Your task to perform on an android device: Add asus rog to the cart on newegg Image 0: 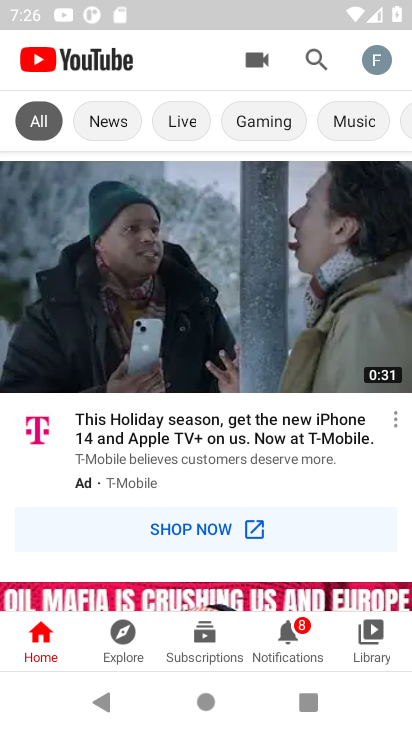
Step 0: press home button
Your task to perform on an android device: Add asus rog to the cart on newegg Image 1: 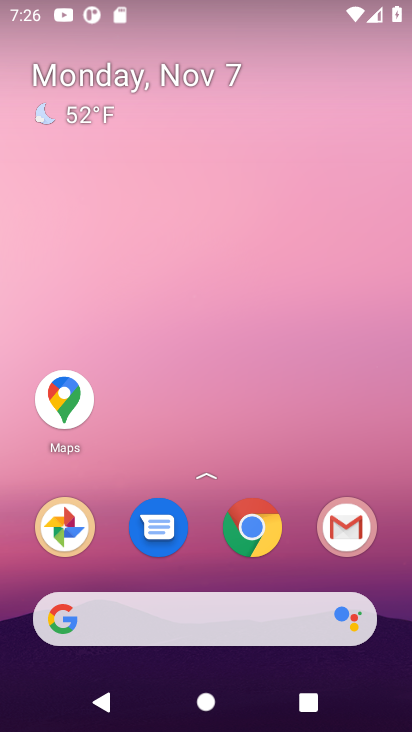
Step 1: click (247, 520)
Your task to perform on an android device: Add asus rog to the cart on newegg Image 2: 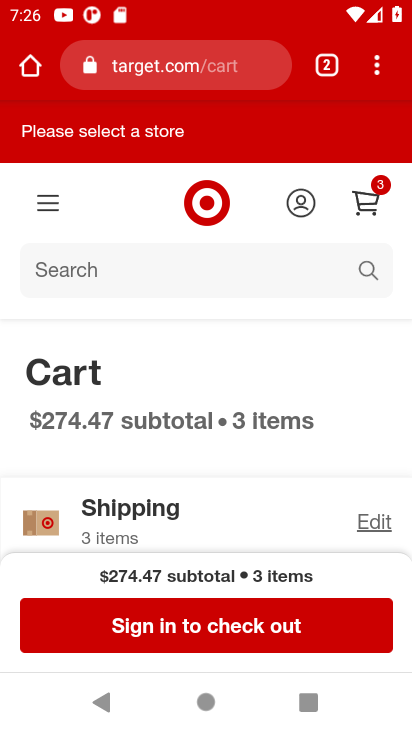
Step 2: click (194, 66)
Your task to perform on an android device: Add asus rog to the cart on newegg Image 3: 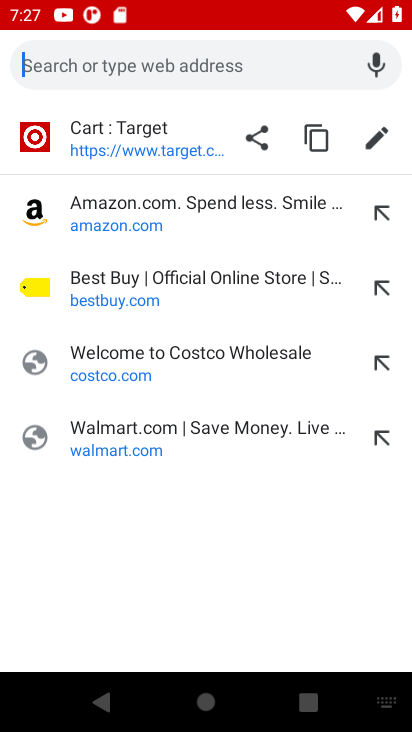
Step 3: type "newgg"
Your task to perform on an android device: Add asus rog to the cart on newegg Image 4: 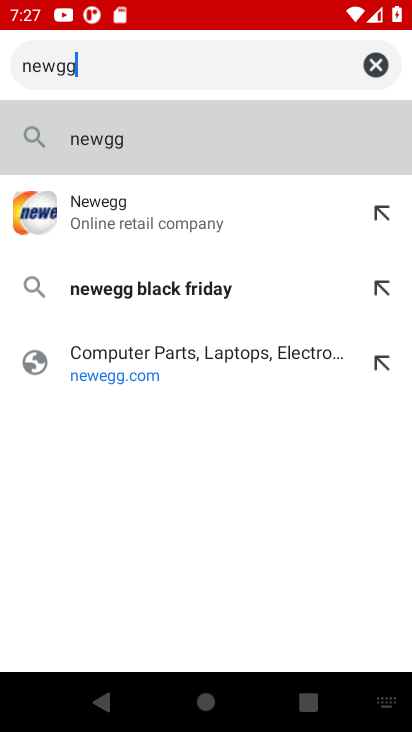
Step 4: click (141, 214)
Your task to perform on an android device: Add asus rog to the cart on newegg Image 5: 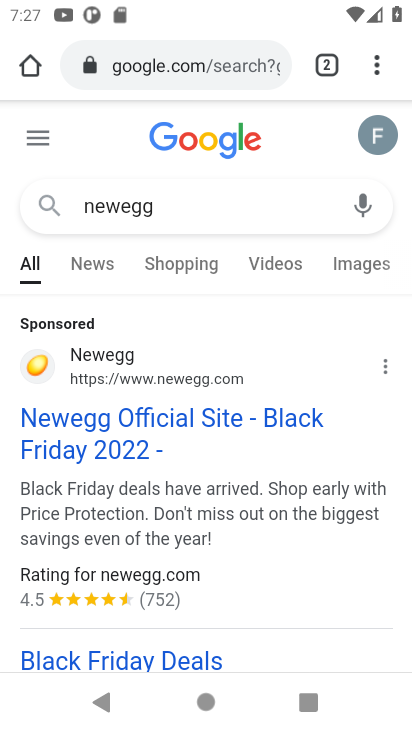
Step 5: click (128, 452)
Your task to perform on an android device: Add asus rog to the cart on newegg Image 6: 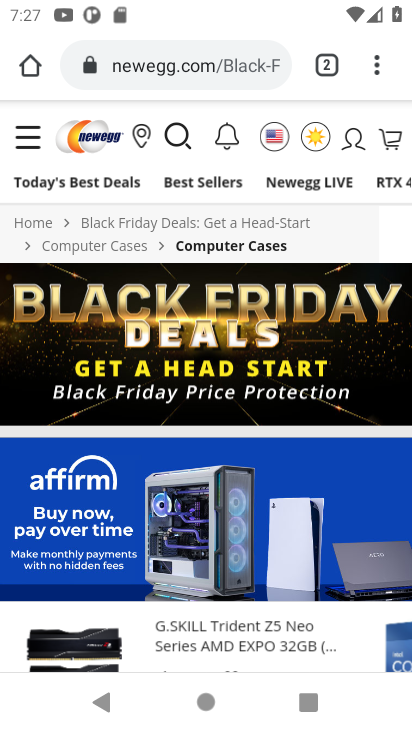
Step 6: click (174, 146)
Your task to perform on an android device: Add asus rog to the cart on newegg Image 7: 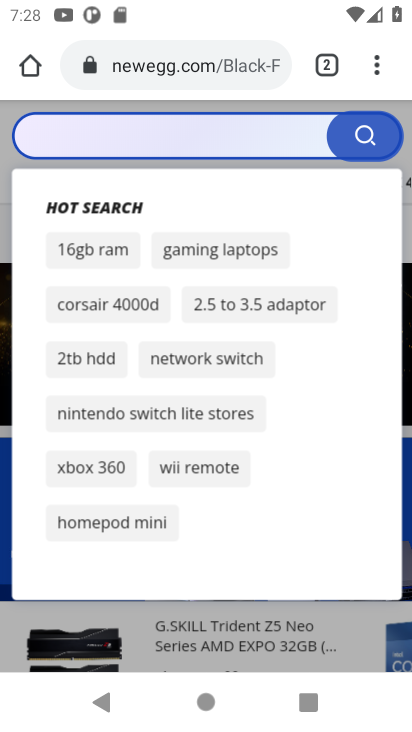
Step 7: click (170, 140)
Your task to perform on an android device: Add asus rog to the cart on newegg Image 8: 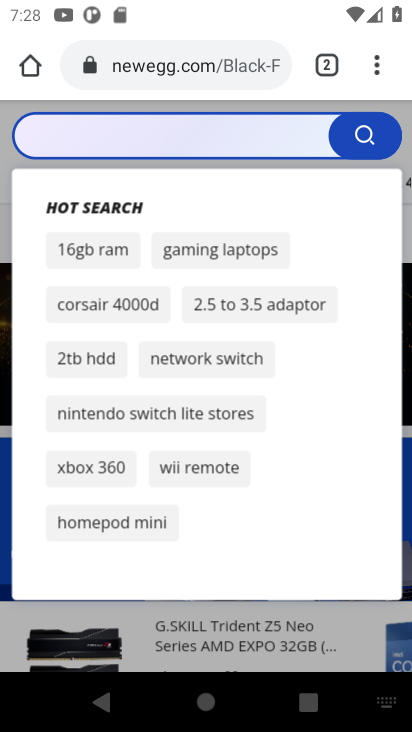
Step 8: type "asus rog"
Your task to perform on an android device: Add asus rog to the cart on newegg Image 9: 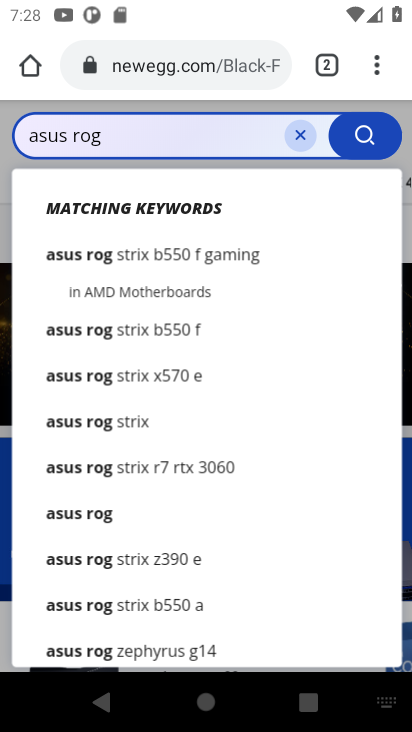
Step 9: press enter
Your task to perform on an android device: Add asus rog to the cart on newegg Image 10: 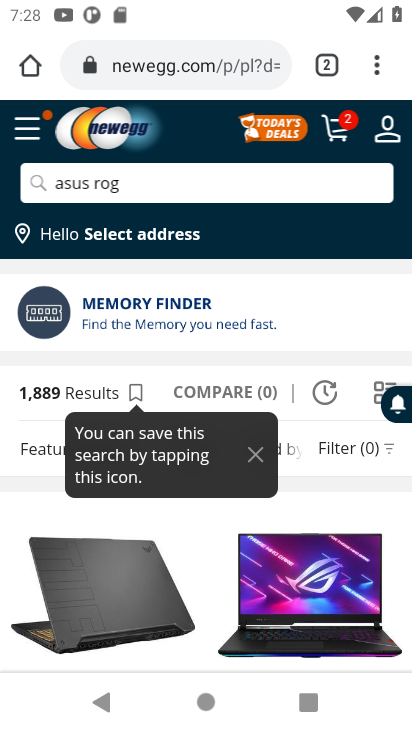
Step 10: click (171, 192)
Your task to perform on an android device: Add asus rog to the cart on newegg Image 11: 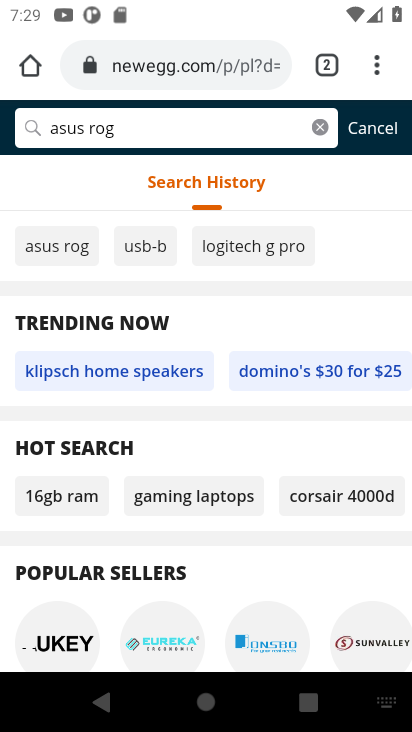
Step 11: task complete